Your task to perform on an android device: add a label to a message in the gmail app Image 0: 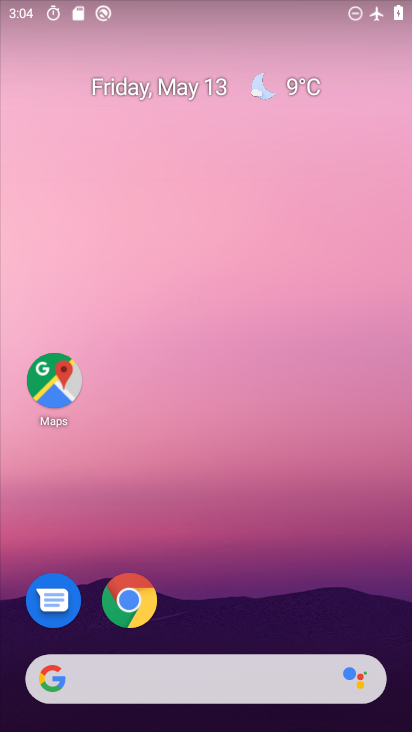
Step 0: drag from (186, 629) to (252, 164)
Your task to perform on an android device: add a label to a message in the gmail app Image 1: 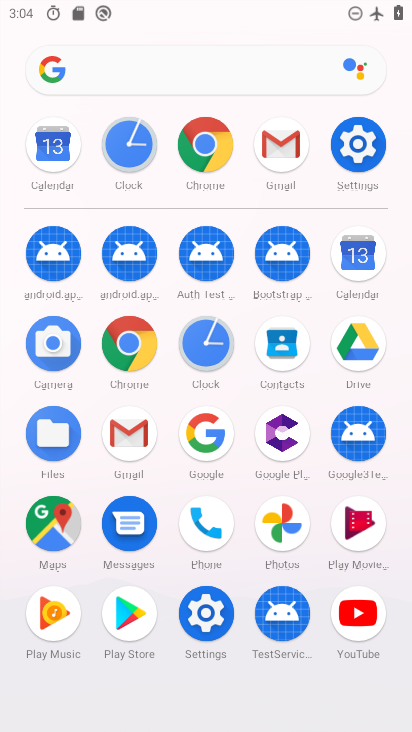
Step 1: click (111, 427)
Your task to perform on an android device: add a label to a message in the gmail app Image 2: 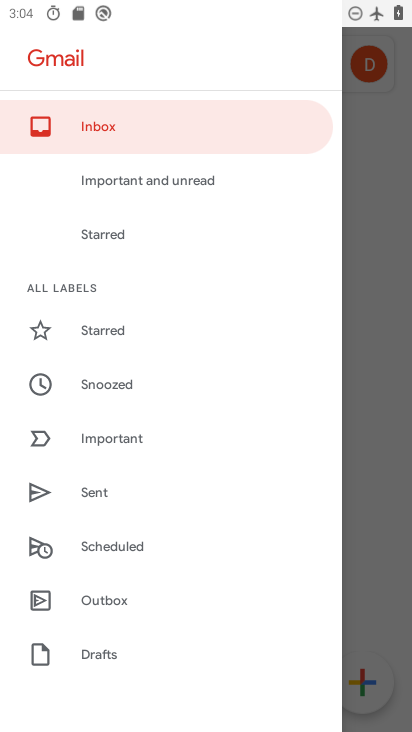
Step 2: drag from (194, 550) to (236, 170)
Your task to perform on an android device: add a label to a message in the gmail app Image 3: 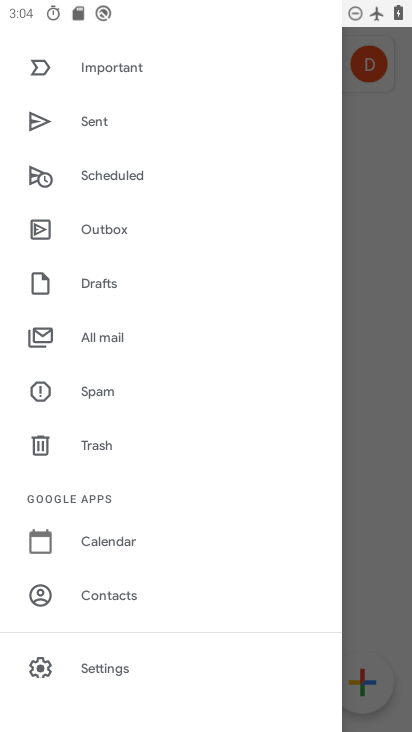
Step 3: click (371, 508)
Your task to perform on an android device: add a label to a message in the gmail app Image 4: 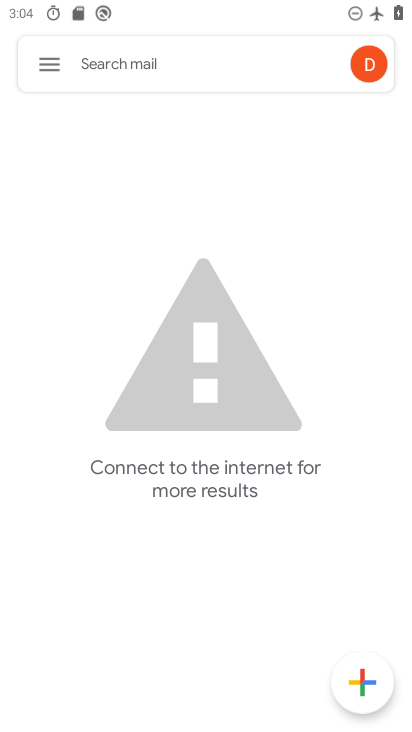
Step 4: click (36, 62)
Your task to perform on an android device: add a label to a message in the gmail app Image 5: 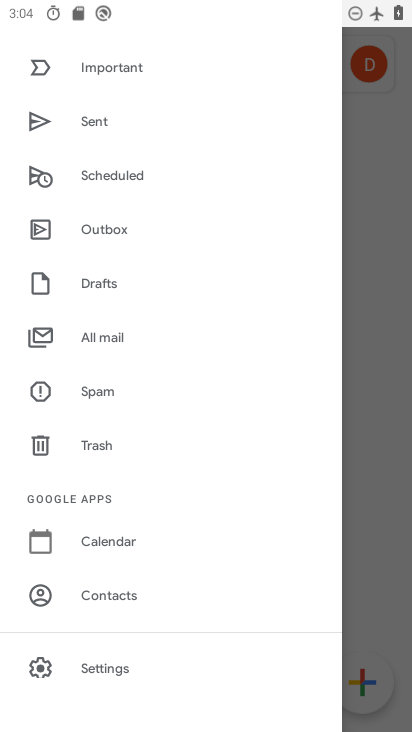
Step 5: drag from (186, 208) to (218, 636)
Your task to perform on an android device: add a label to a message in the gmail app Image 6: 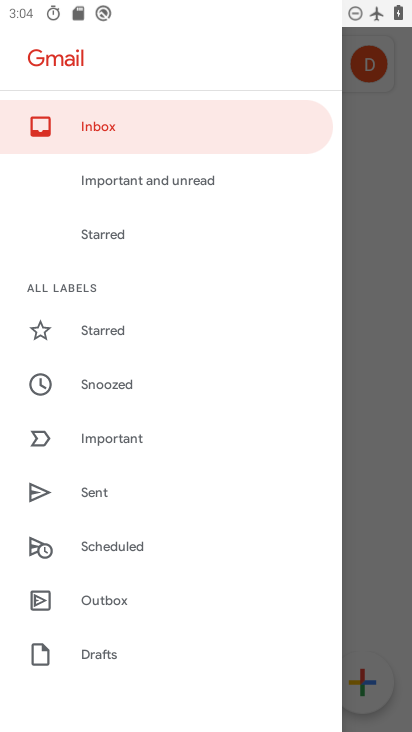
Step 6: click (140, 131)
Your task to perform on an android device: add a label to a message in the gmail app Image 7: 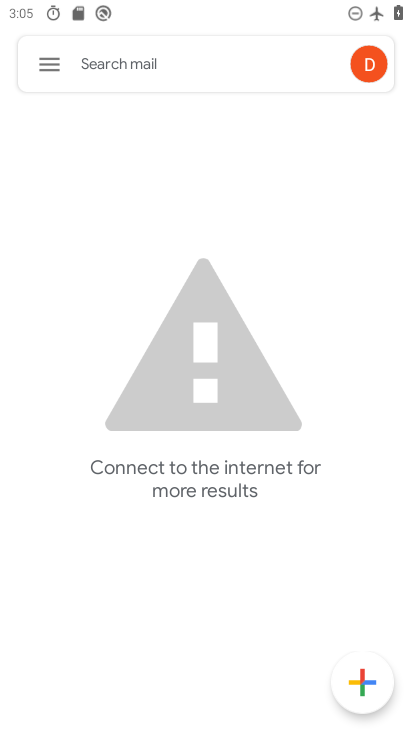
Step 7: task complete